Your task to perform on an android device: turn off picture-in-picture Image 0: 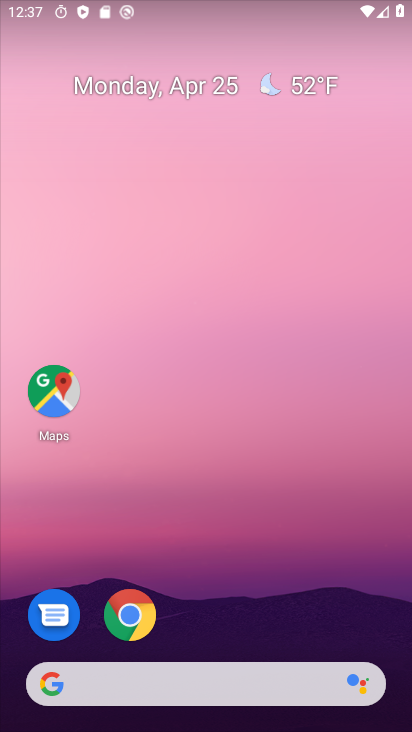
Step 0: drag from (208, 643) to (29, 66)
Your task to perform on an android device: turn off picture-in-picture Image 1: 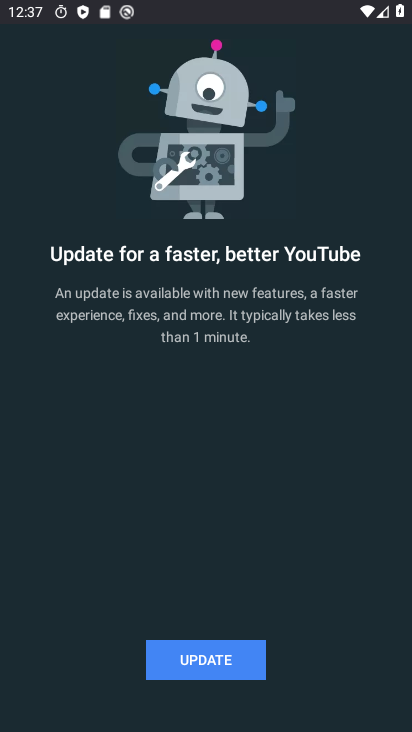
Step 1: press home button
Your task to perform on an android device: turn off picture-in-picture Image 2: 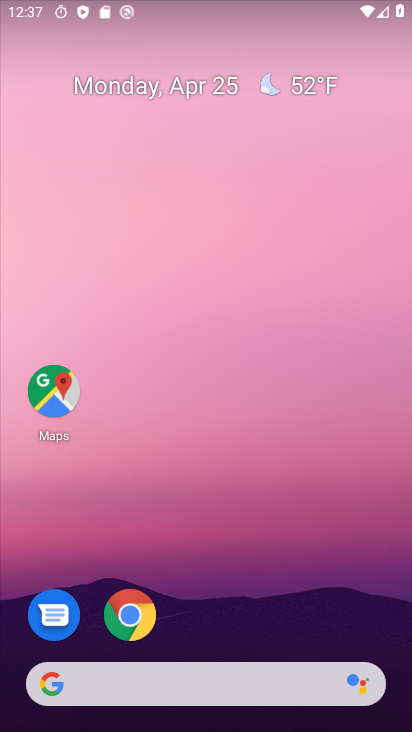
Step 2: drag from (215, 638) to (291, 34)
Your task to perform on an android device: turn off picture-in-picture Image 3: 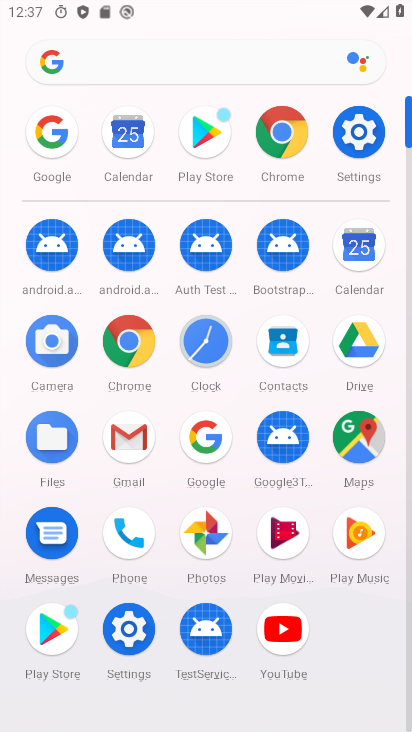
Step 3: click (356, 139)
Your task to perform on an android device: turn off picture-in-picture Image 4: 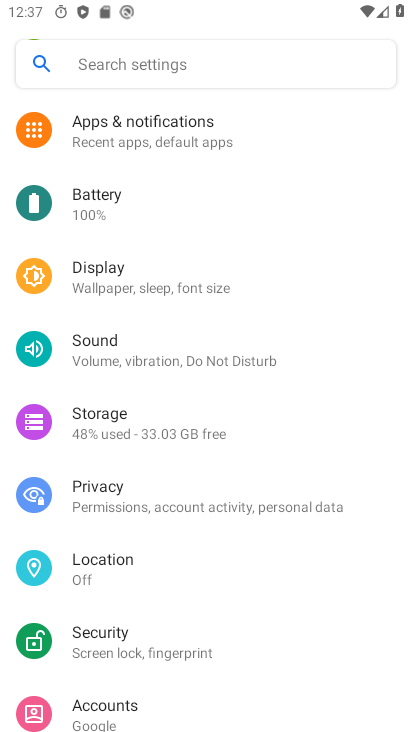
Step 4: click (151, 147)
Your task to perform on an android device: turn off picture-in-picture Image 5: 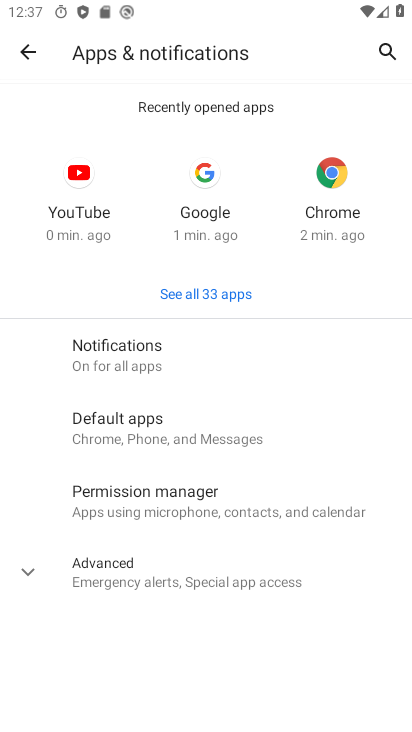
Step 5: click (125, 378)
Your task to perform on an android device: turn off picture-in-picture Image 6: 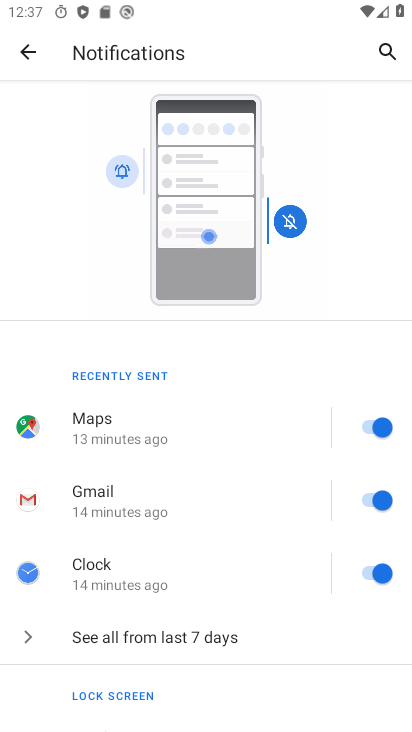
Step 6: drag from (142, 668) to (143, 128)
Your task to perform on an android device: turn off picture-in-picture Image 7: 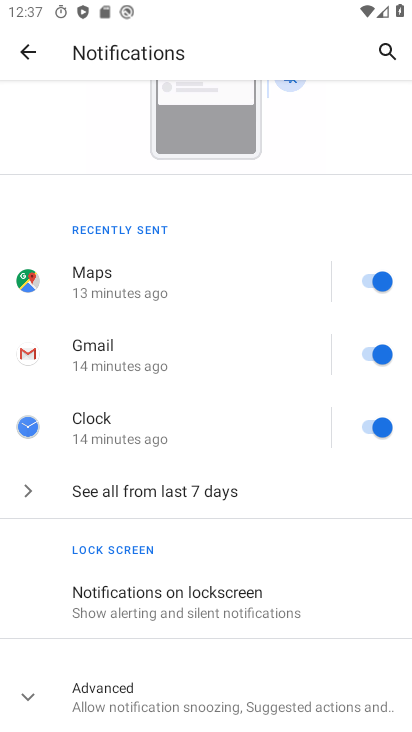
Step 7: click (216, 674)
Your task to perform on an android device: turn off picture-in-picture Image 8: 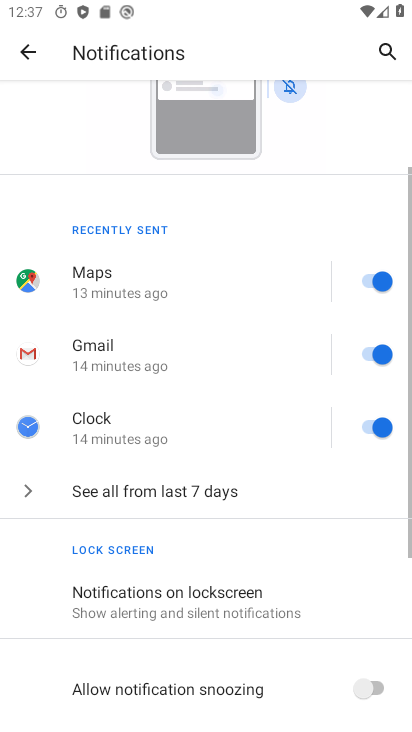
Step 8: task complete